Your task to perform on an android device: Open Amazon Image 0: 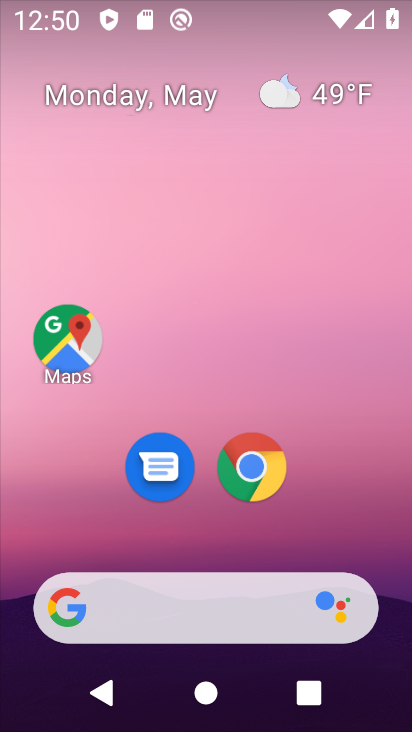
Step 0: click (391, 488)
Your task to perform on an android device: Open Amazon Image 1: 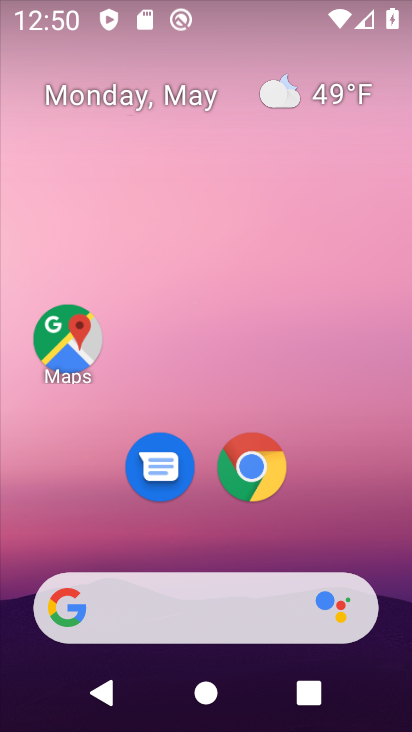
Step 1: press home button
Your task to perform on an android device: Open Amazon Image 2: 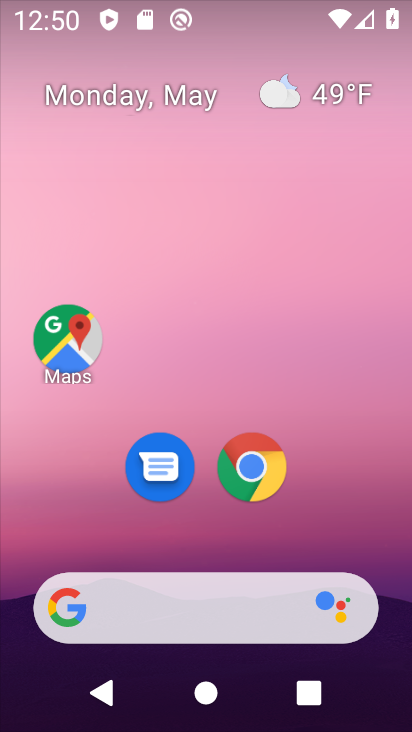
Step 2: drag from (379, 551) to (295, 113)
Your task to perform on an android device: Open Amazon Image 3: 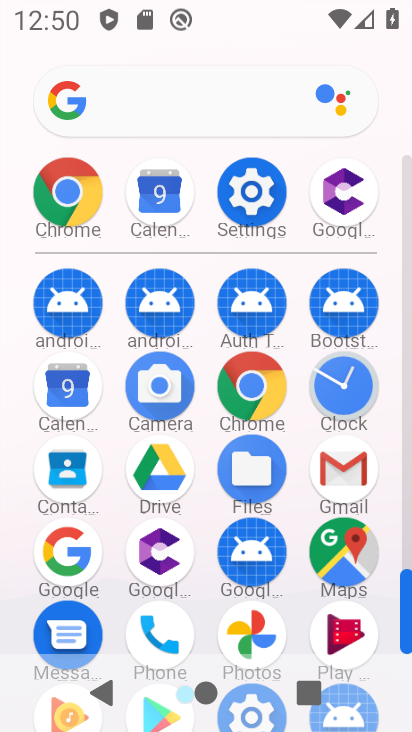
Step 3: click (292, 377)
Your task to perform on an android device: Open Amazon Image 4: 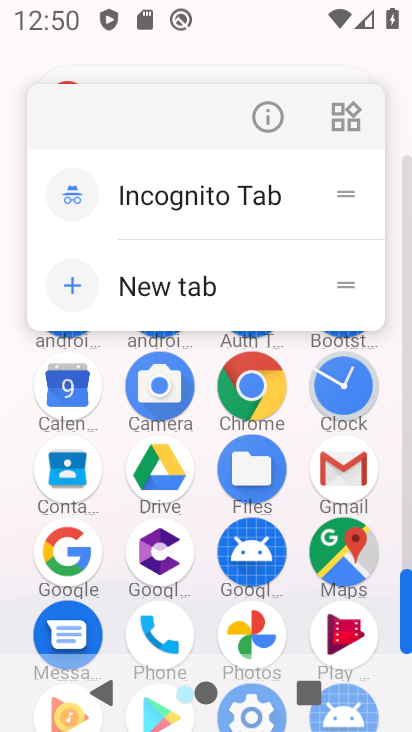
Step 4: click (240, 378)
Your task to perform on an android device: Open Amazon Image 5: 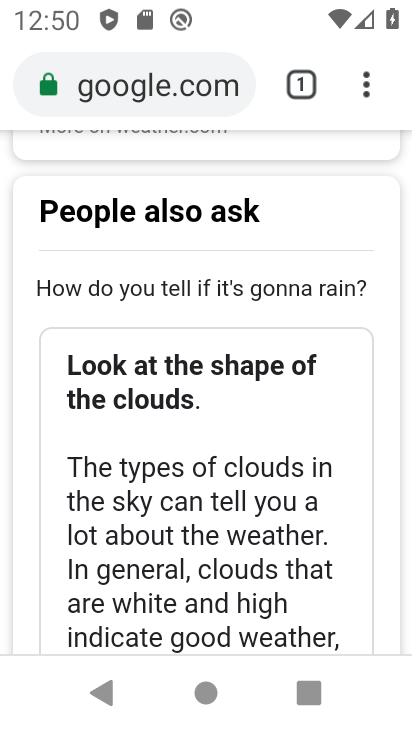
Step 5: drag from (381, 92) to (114, 66)
Your task to perform on an android device: Open Amazon Image 6: 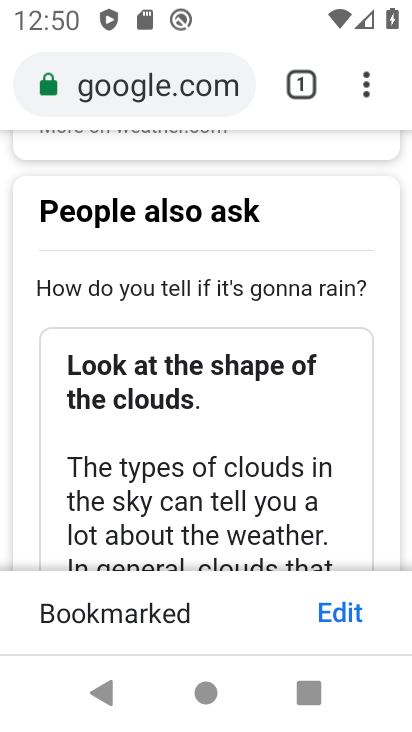
Step 6: press back button
Your task to perform on an android device: Open Amazon Image 7: 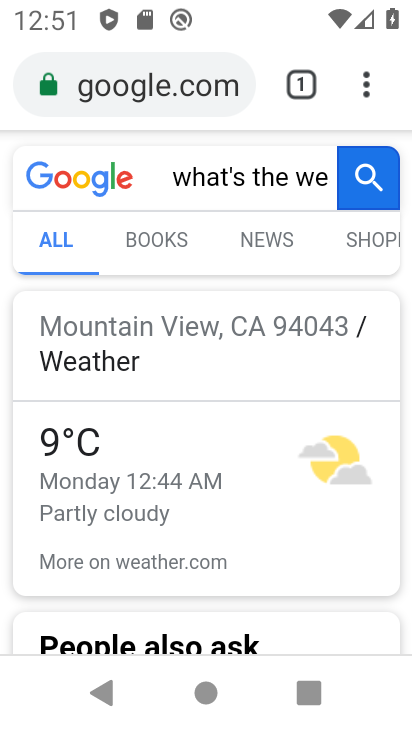
Step 7: click (310, 91)
Your task to perform on an android device: Open Amazon Image 8: 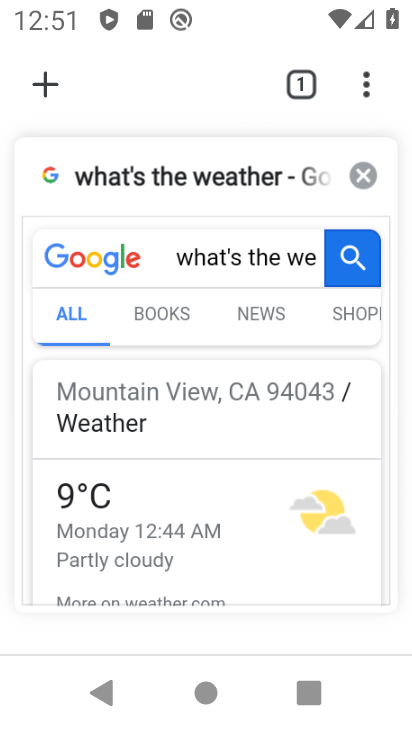
Step 8: click (45, 87)
Your task to perform on an android device: Open Amazon Image 9: 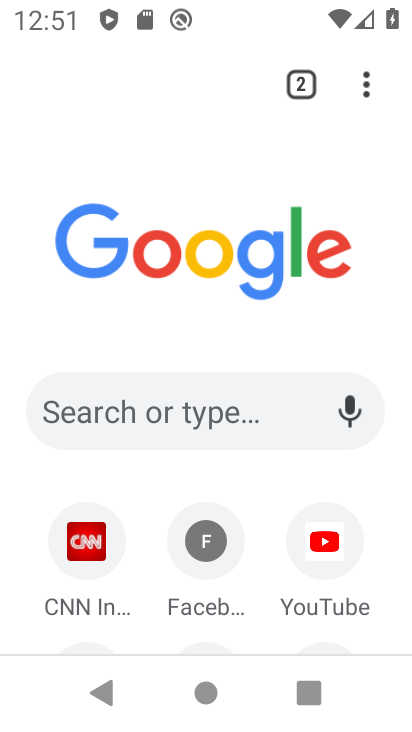
Step 9: drag from (271, 556) to (263, 230)
Your task to perform on an android device: Open Amazon Image 10: 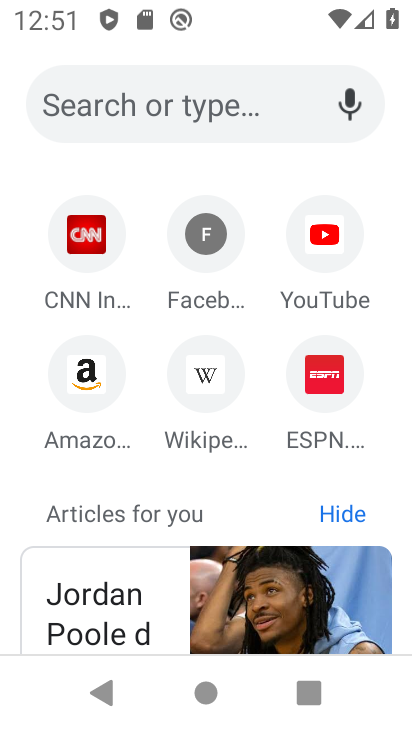
Step 10: click (107, 398)
Your task to perform on an android device: Open Amazon Image 11: 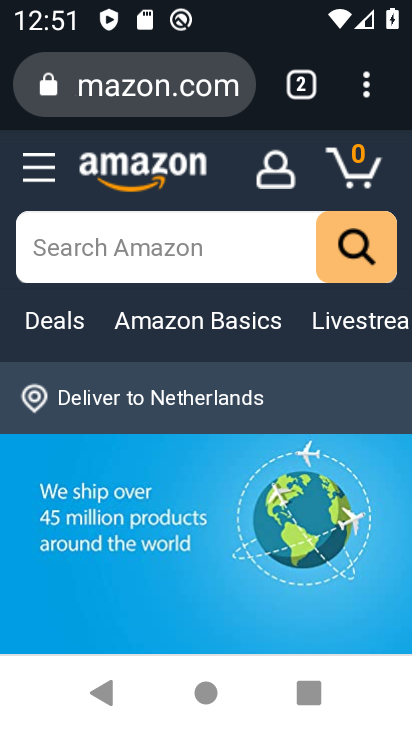
Step 11: task complete